Your task to perform on an android device: turn off javascript in the chrome app Image 0: 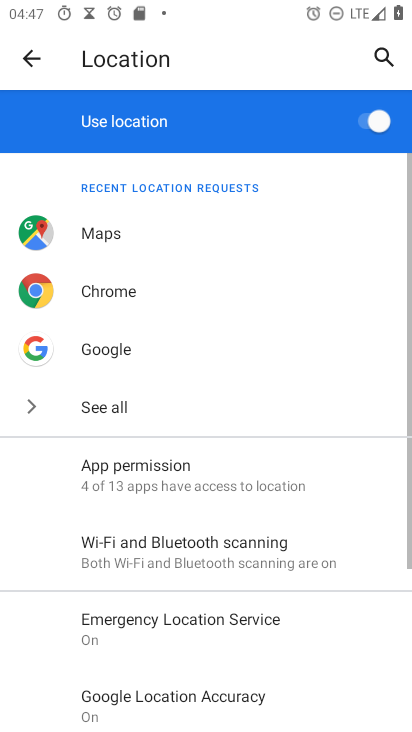
Step 0: press home button
Your task to perform on an android device: turn off javascript in the chrome app Image 1: 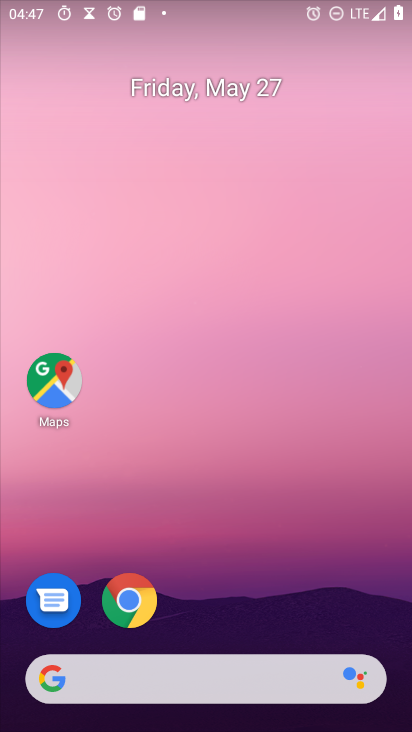
Step 1: click (130, 607)
Your task to perform on an android device: turn off javascript in the chrome app Image 2: 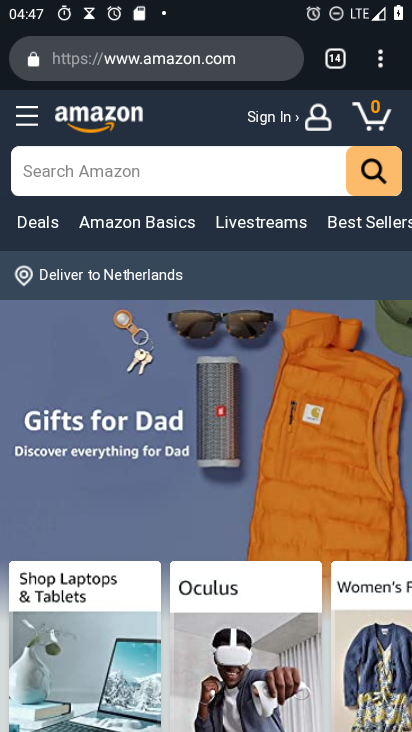
Step 2: click (383, 69)
Your task to perform on an android device: turn off javascript in the chrome app Image 3: 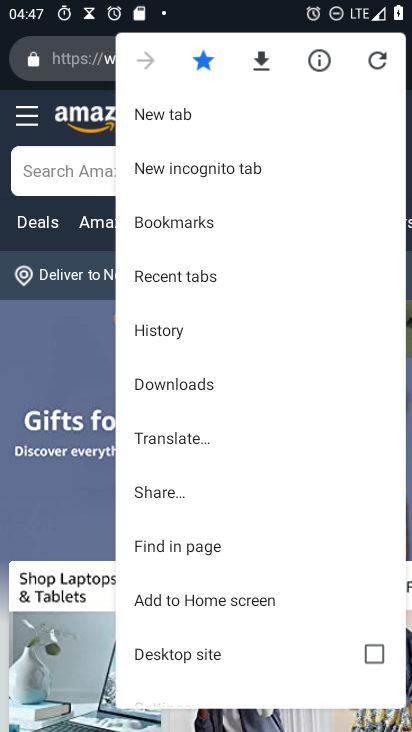
Step 3: drag from (178, 588) to (162, 250)
Your task to perform on an android device: turn off javascript in the chrome app Image 4: 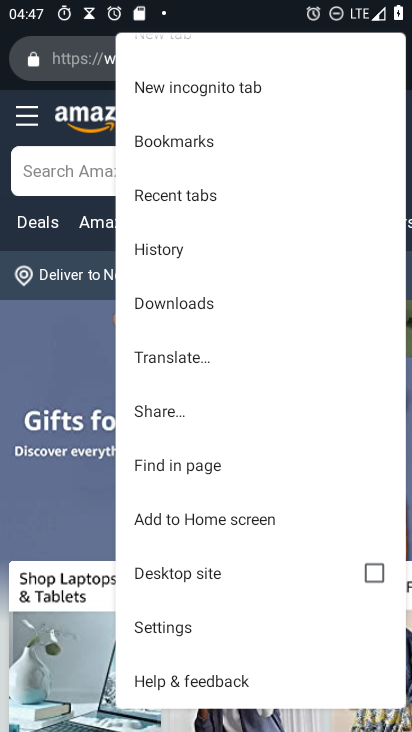
Step 4: click (158, 625)
Your task to perform on an android device: turn off javascript in the chrome app Image 5: 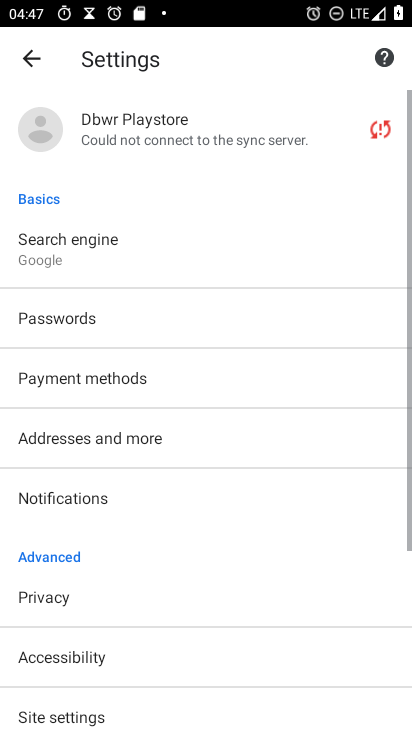
Step 5: drag from (123, 678) to (134, 293)
Your task to perform on an android device: turn off javascript in the chrome app Image 6: 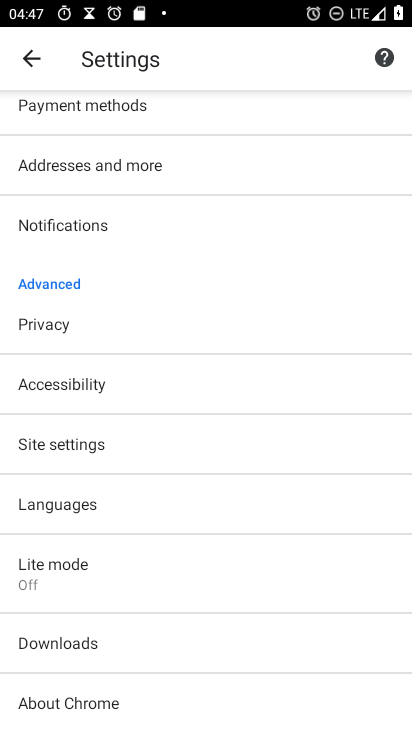
Step 6: click (59, 447)
Your task to perform on an android device: turn off javascript in the chrome app Image 7: 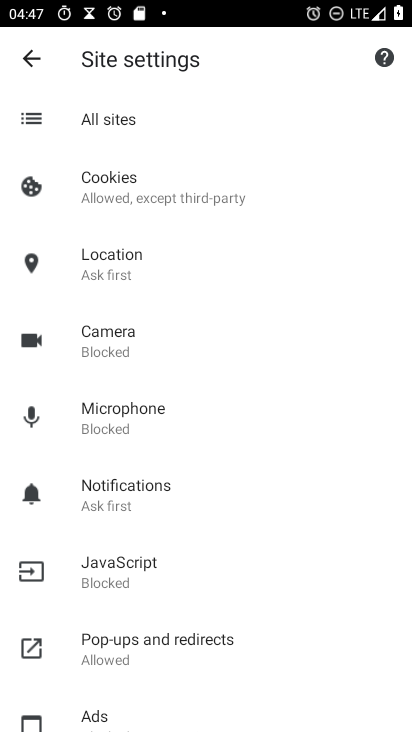
Step 7: click (120, 558)
Your task to perform on an android device: turn off javascript in the chrome app Image 8: 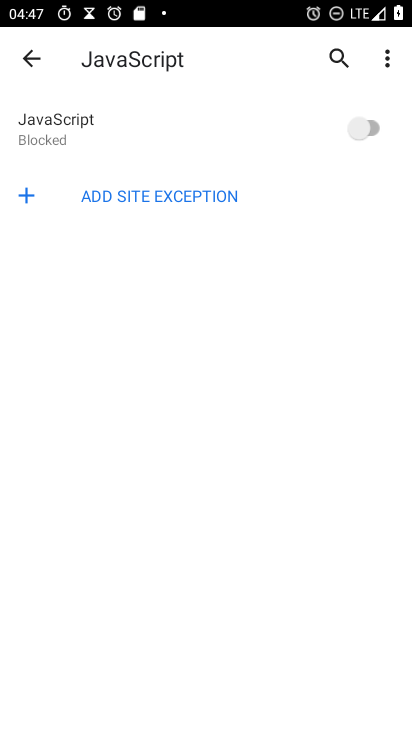
Step 8: task complete